Your task to perform on an android device: turn off javascript in the chrome app Image 0: 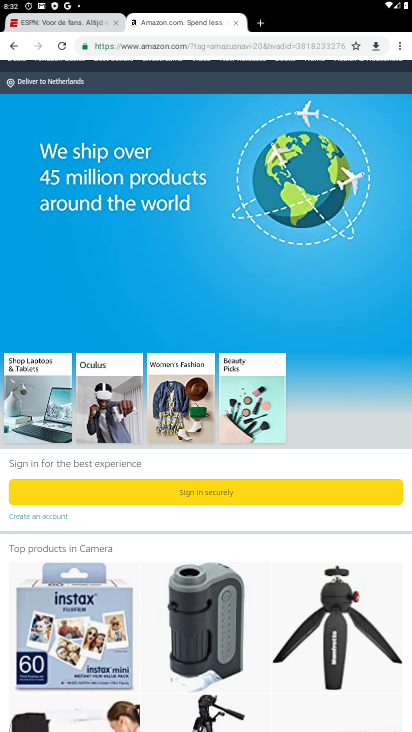
Step 0: press home button
Your task to perform on an android device: turn off javascript in the chrome app Image 1: 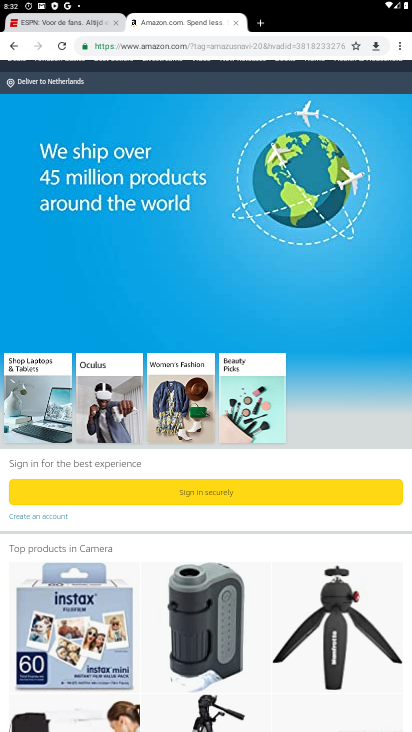
Step 1: drag from (224, 649) to (258, 146)
Your task to perform on an android device: turn off javascript in the chrome app Image 2: 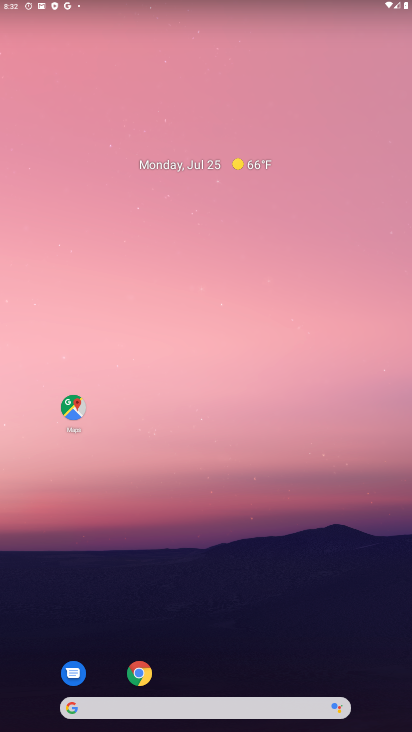
Step 2: drag from (209, 671) to (208, 8)
Your task to perform on an android device: turn off javascript in the chrome app Image 3: 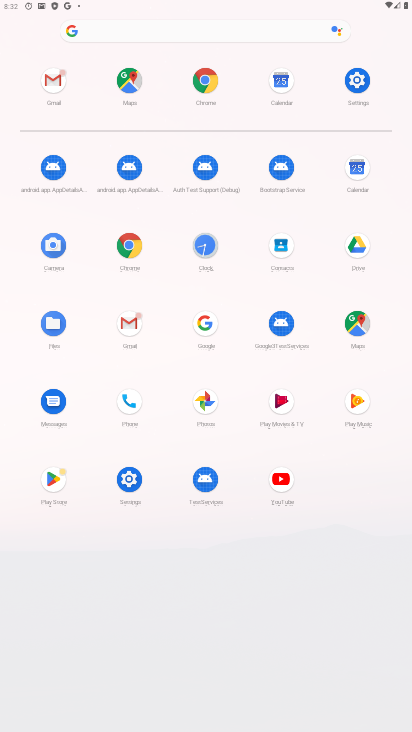
Step 3: click (130, 236)
Your task to perform on an android device: turn off javascript in the chrome app Image 4: 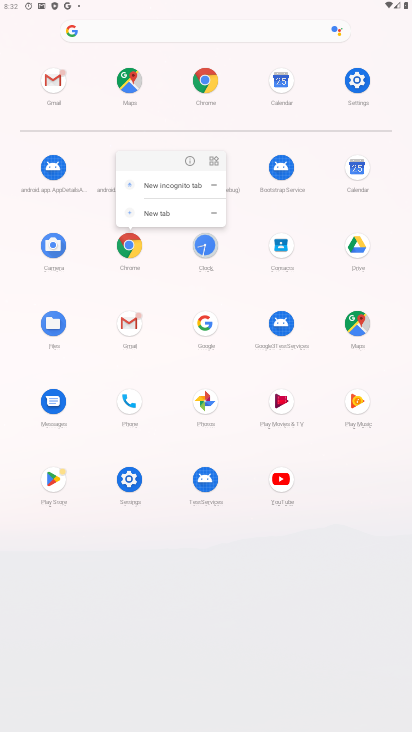
Step 4: click (190, 154)
Your task to perform on an android device: turn off javascript in the chrome app Image 5: 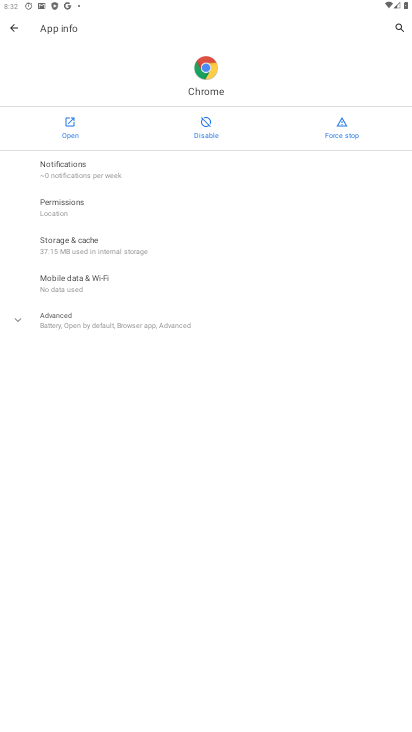
Step 5: click (61, 121)
Your task to perform on an android device: turn off javascript in the chrome app Image 6: 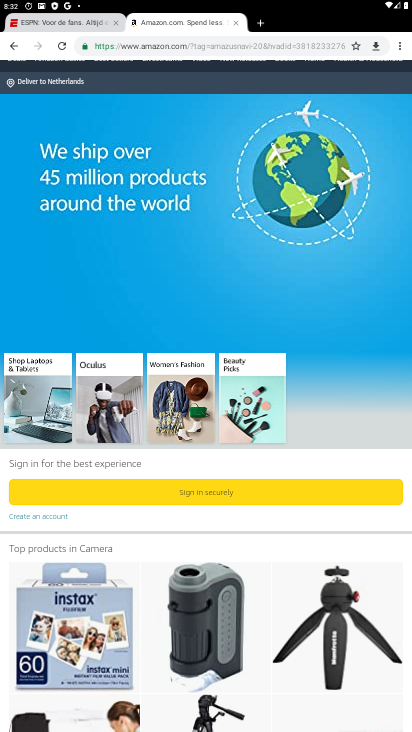
Step 6: drag from (399, 45) to (333, 308)
Your task to perform on an android device: turn off javascript in the chrome app Image 7: 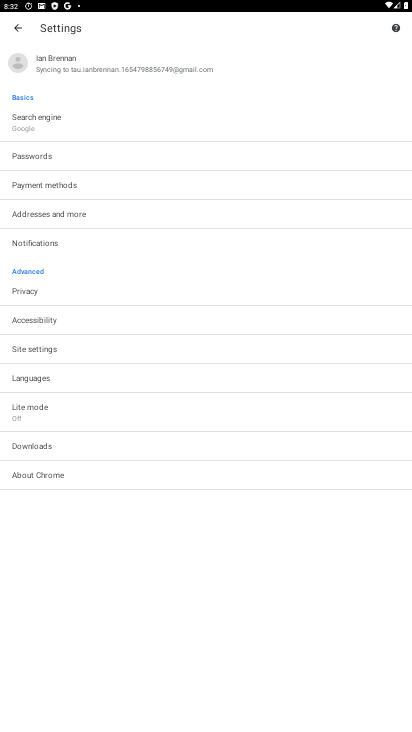
Step 7: click (71, 340)
Your task to perform on an android device: turn off javascript in the chrome app Image 8: 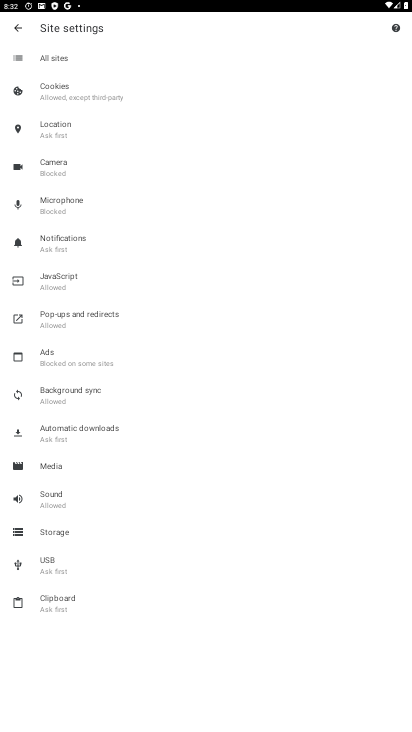
Step 8: click (63, 274)
Your task to perform on an android device: turn off javascript in the chrome app Image 9: 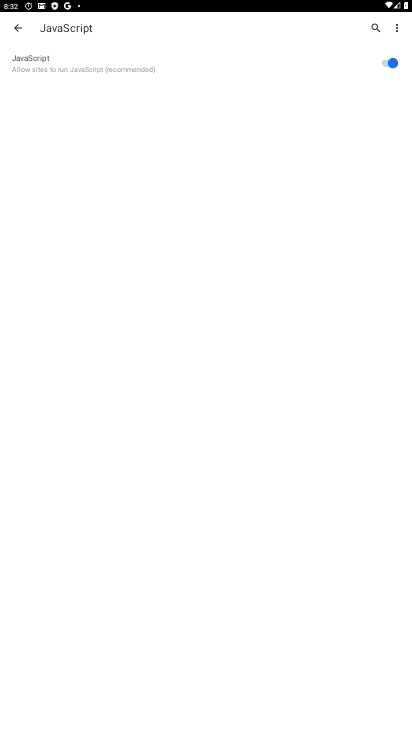
Step 9: click (381, 62)
Your task to perform on an android device: turn off javascript in the chrome app Image 10: 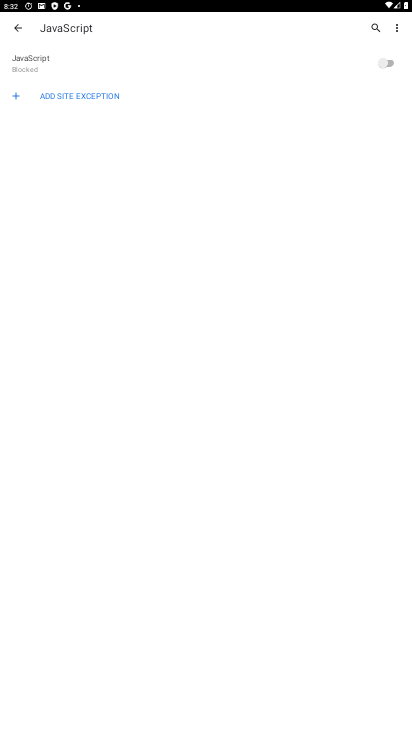
Step 10: task complete